Your task to perform on an android device: check battery use Image 0: 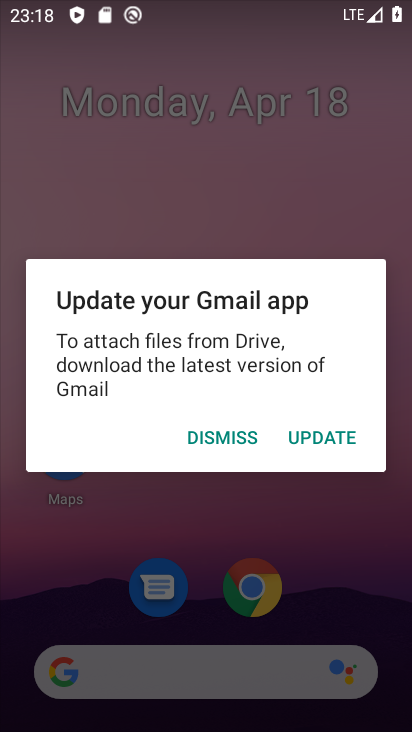
Step 0: press home button
Your task to perform on an android device: check battery use Image 1: 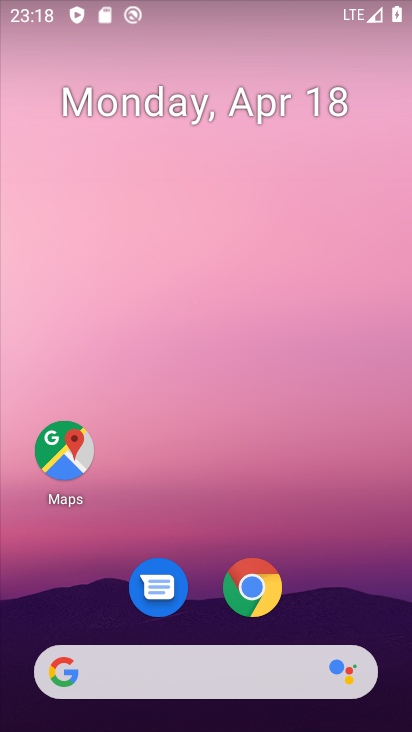
Step 1: drag from (385, 615) to (306, 104)
Your task to perform on an android device: check battery use Image 2: 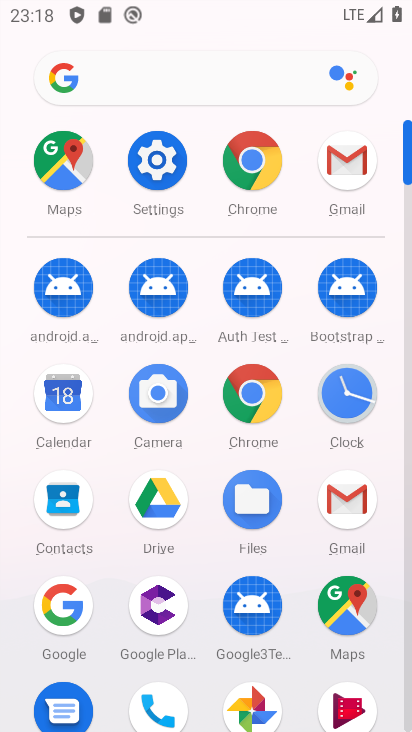
Step 2: click (154, 162)
Your task to perform on an android device: check battery use Image 3: 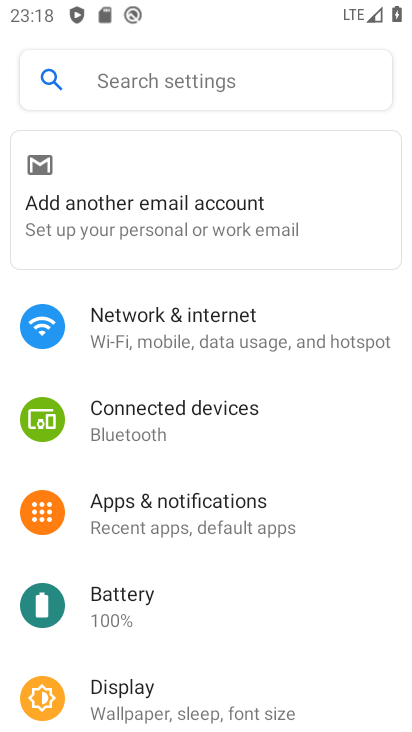
Step 3: click (163, 599)
Your task to perform on an android device: check battery use Image 4: 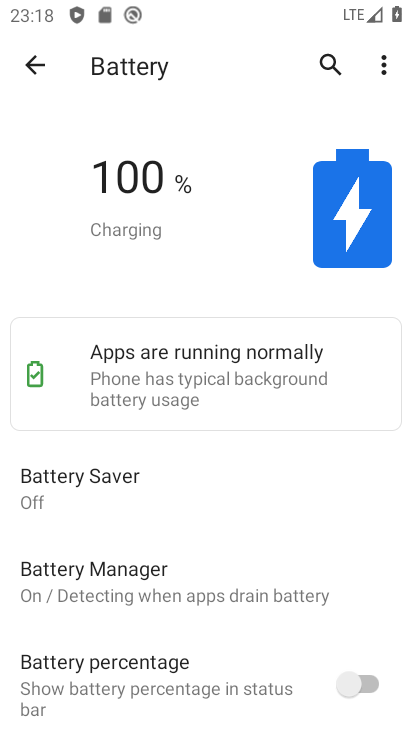
Step 4: click (385, 58)
Your task to perform on an android device: check battery use Image 5: 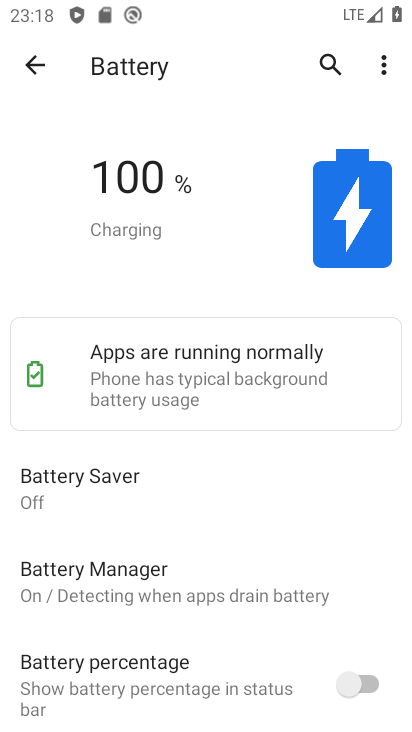
Step 5: task complete